Your task to perform on an android device: What's on my calendar tomorrow? Image 0: 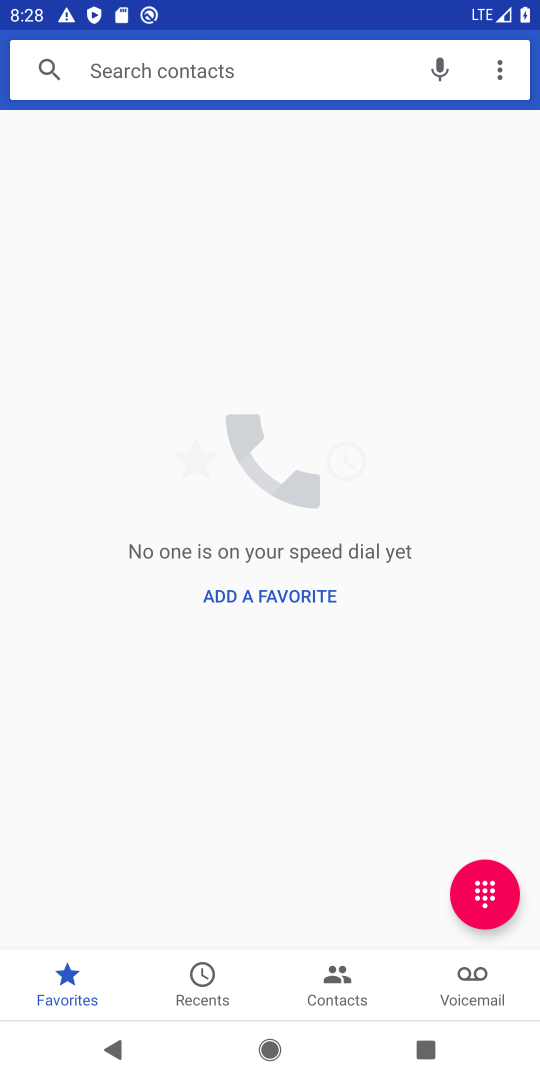
Step 0: press home button
Your task to perform on an android device: What's on my calendar tomorrow? Image 1: 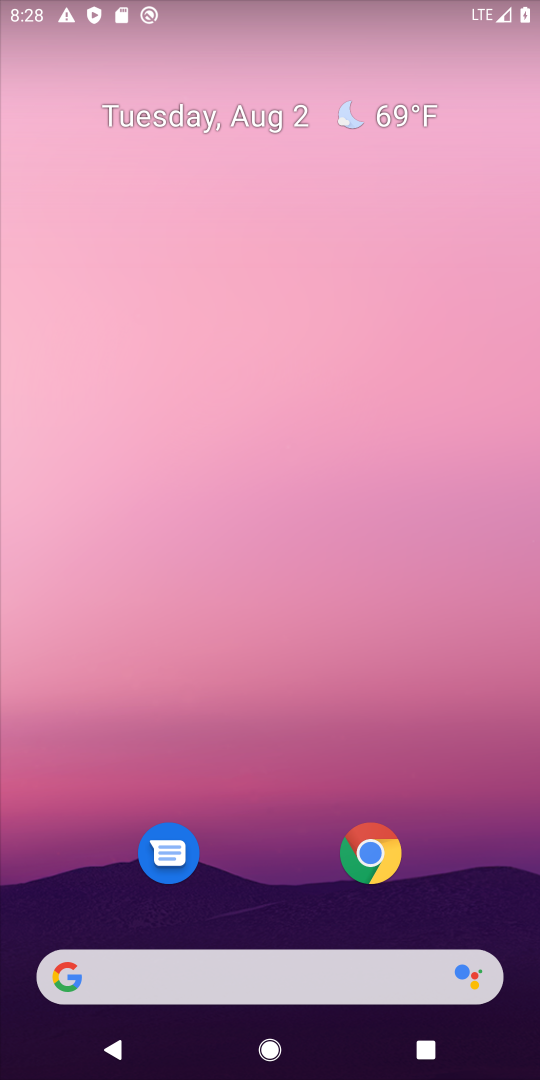
Step 1: drag from (254, 809) to (288, 108)
Your task to perform on an android device: What's on my calendar tomorrow? Image 2: 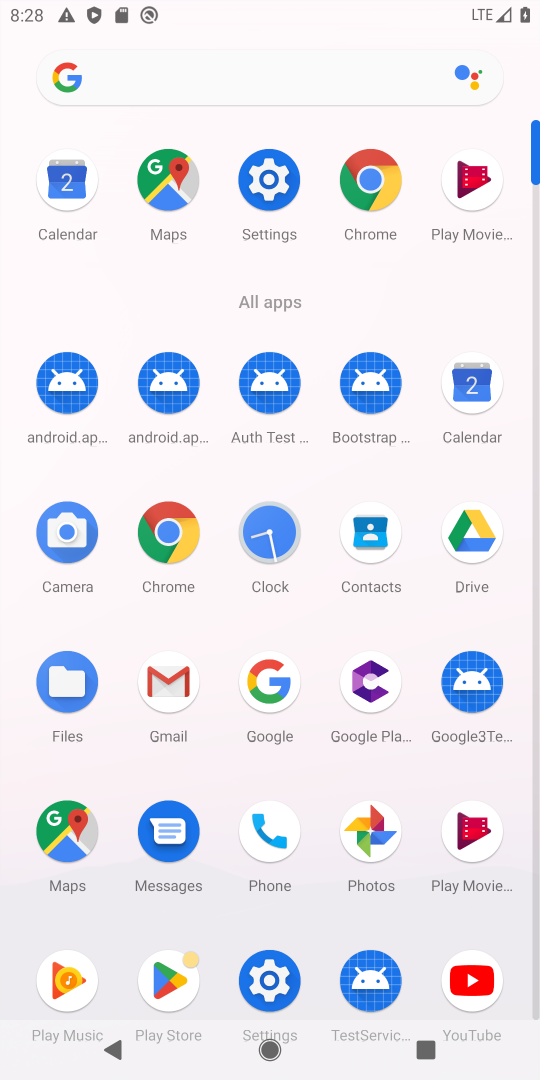
Step 2: click (471, 390)
Your task to perform on an android device: What's on my calendar tomorrow? Image 3: 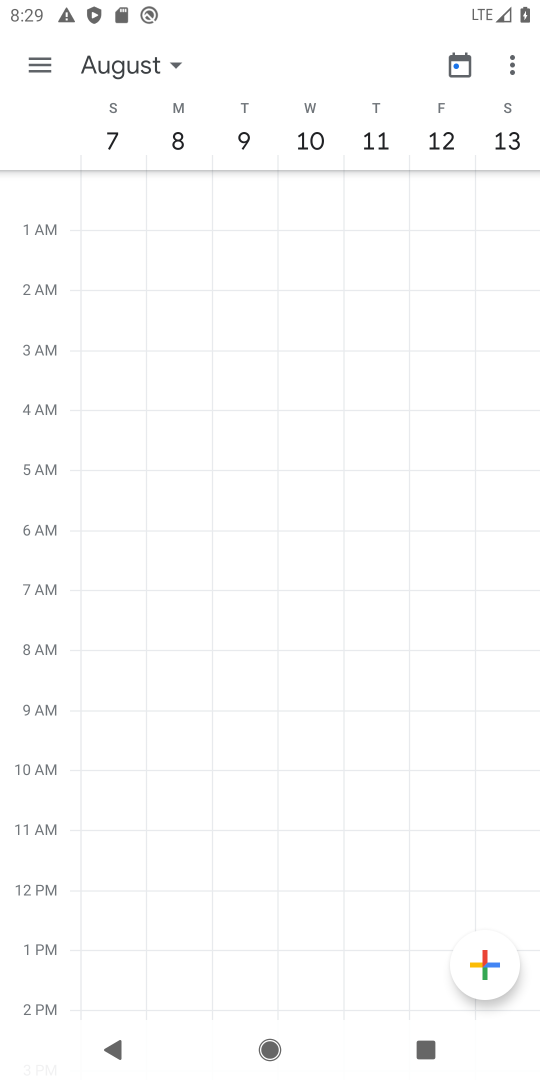
Step 3: click (177, 64)
Your task to perform on an android device: What's on my calendar tomorrow? Image 4: 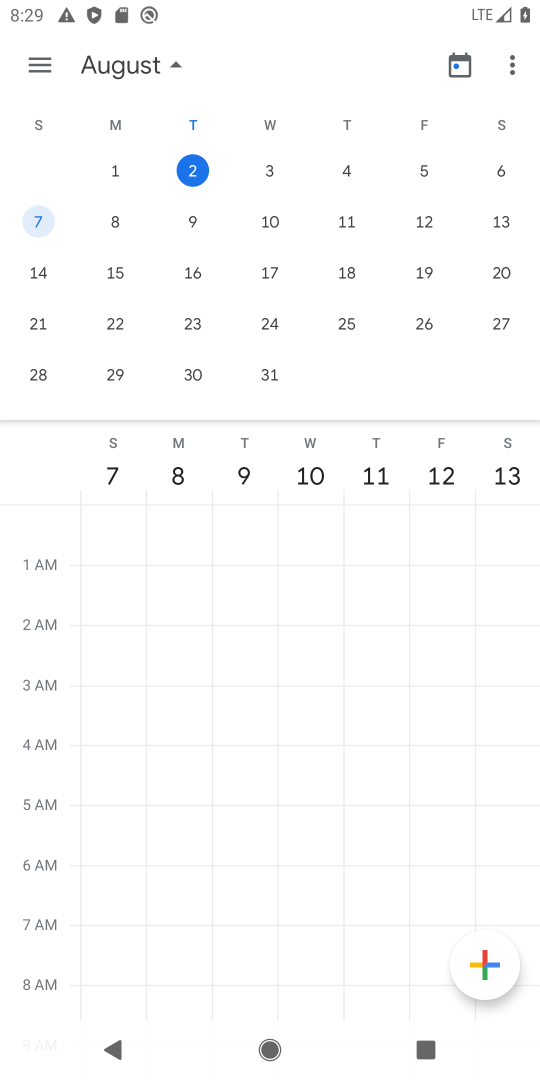
Step 4: click (271, 171)
Your task to perform on an android device: What's on my calendar tomorrow? Image 5: 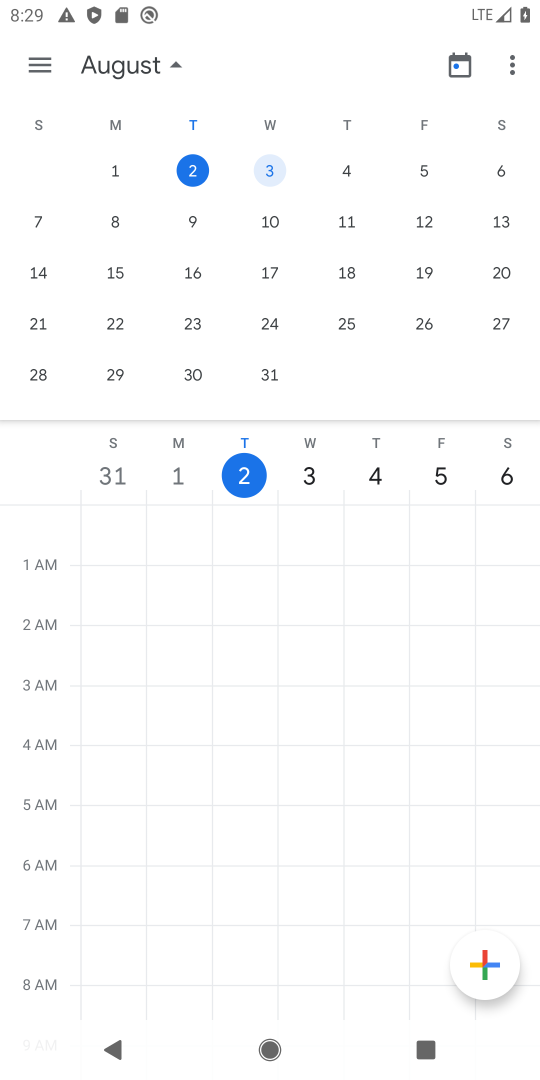
Step 5: click (271, 171)
Your task to perform on an android device: What's on my calendar tomorrow? Image 6: 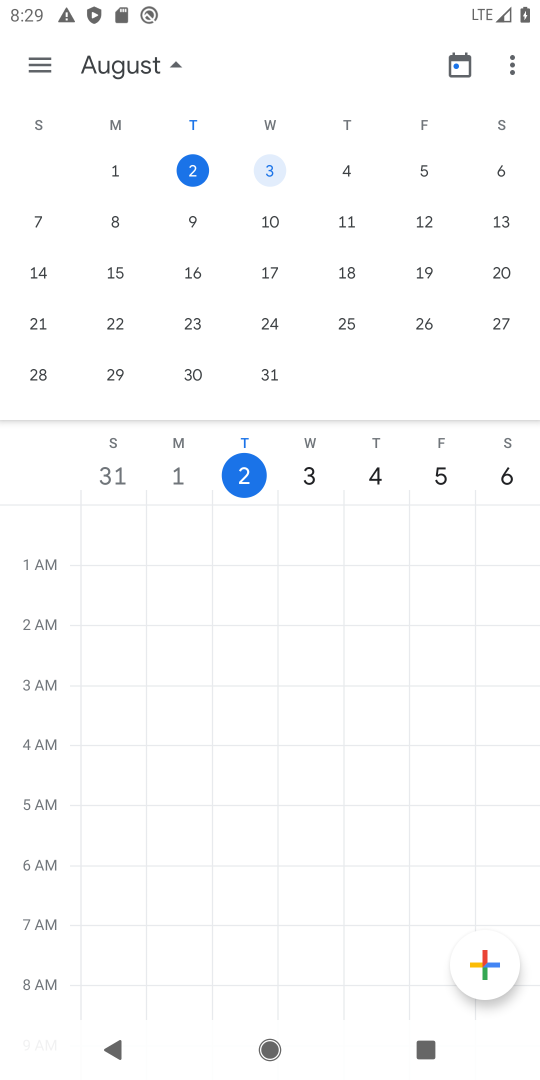
Step 6: click (45, 71)
Your task to perform on an android device: What's on my calendar tomorrow? Image 7: 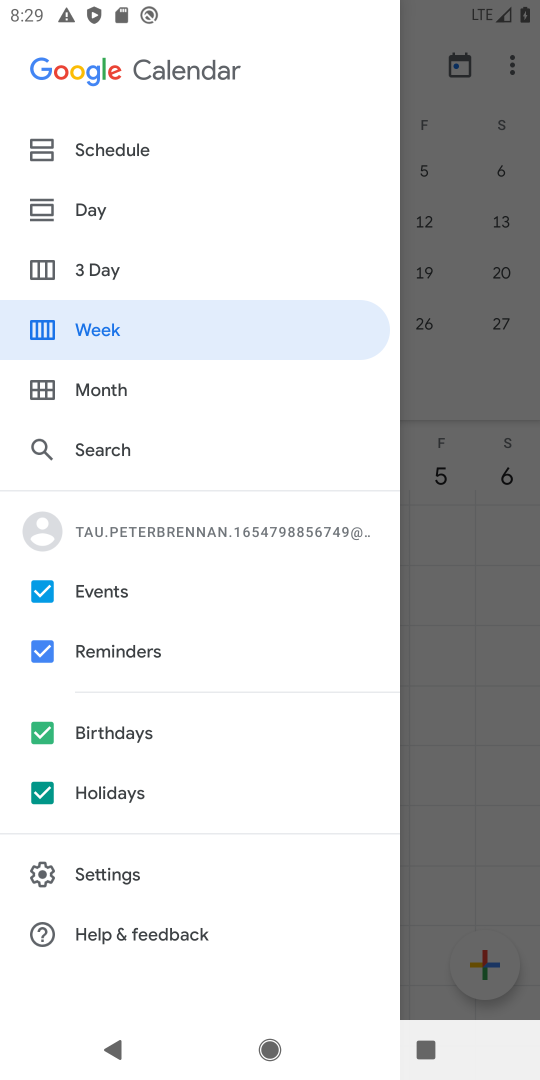
Step 7: click (65, 213)
Your task to perform on an android device: What's on my calendar tomorrow? Image 8: 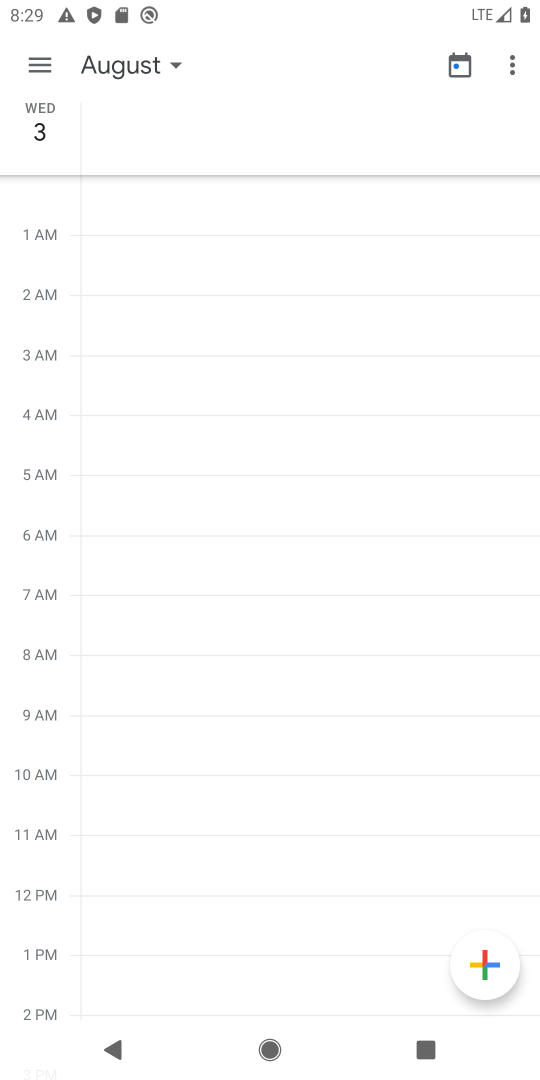
Step 8: task complete